Your task to perform on an android device: Search for Italian restaurants on Maps Image 0: 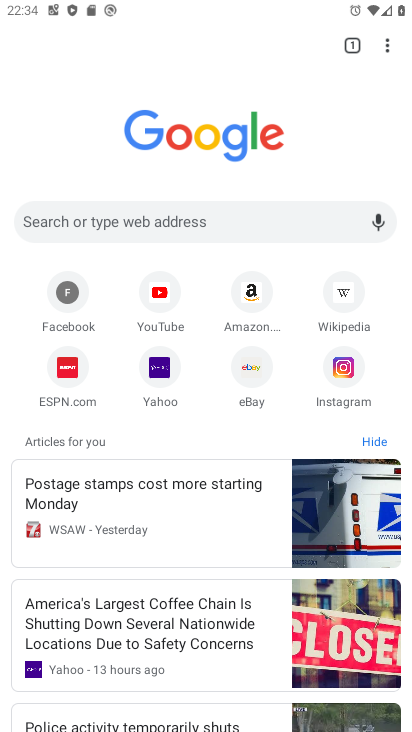
Step 0: press home button
Your task to perform on an android device: Search for Italian restaurants on Maps Image 1: 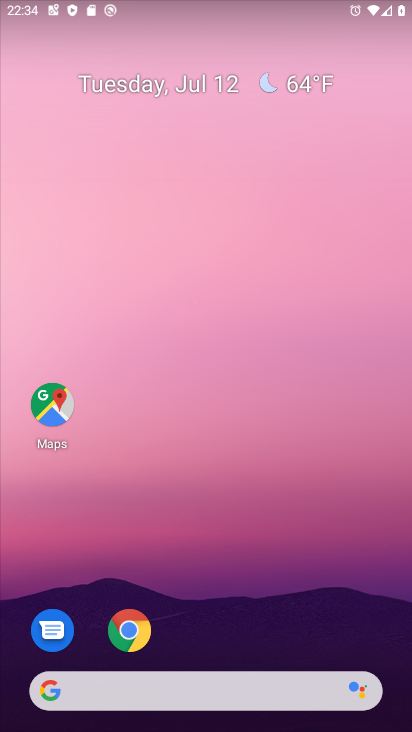
Step 1: drag from (219, 648) to (171, 111)
Your task to perform on an android device: Search for Italian restaurants on Maps Image 2: 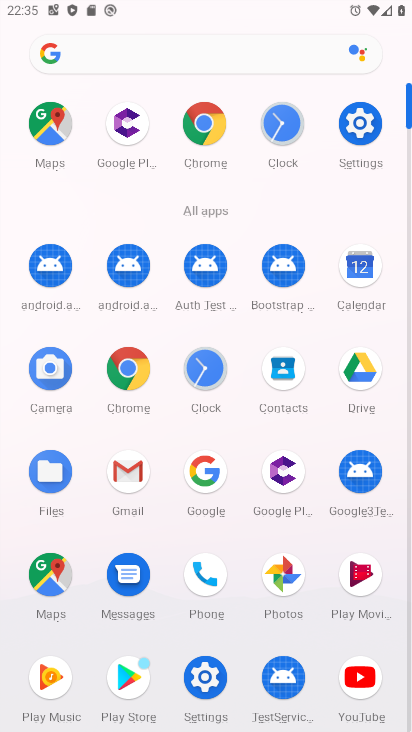
Step 2: click (55, 570)
Your task to perform on an android device: Search for Italian restaurants on Maps Image 3: 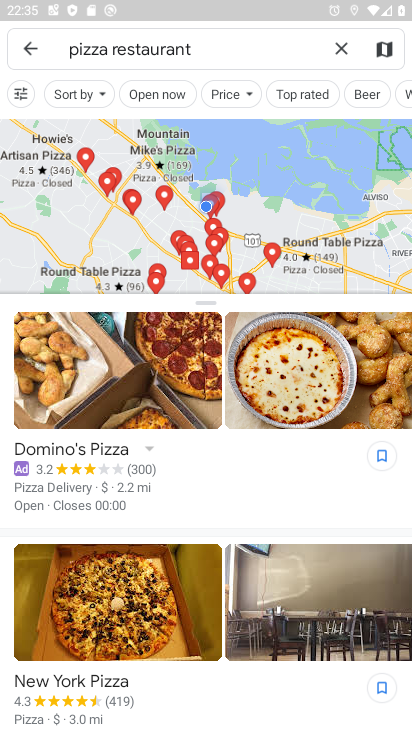
Step 3: click (337, 48)
Your task to perform on an android device: Search for Italian restaurants on Maps Image 4: 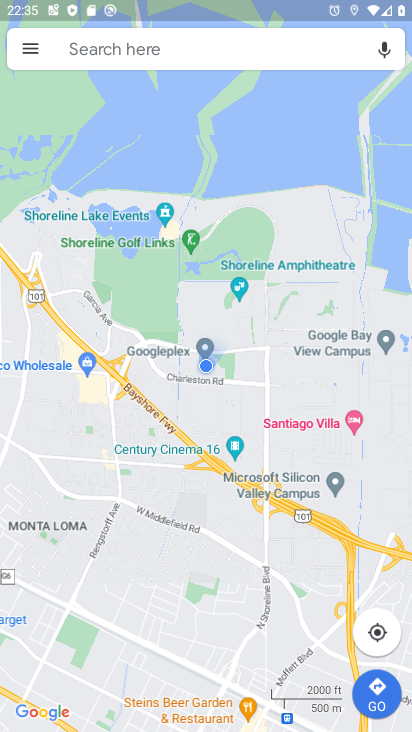
Step 4: click (233, 48)
Your task to perform on an android device: Search for Italian restaurants on Maps Image 5: 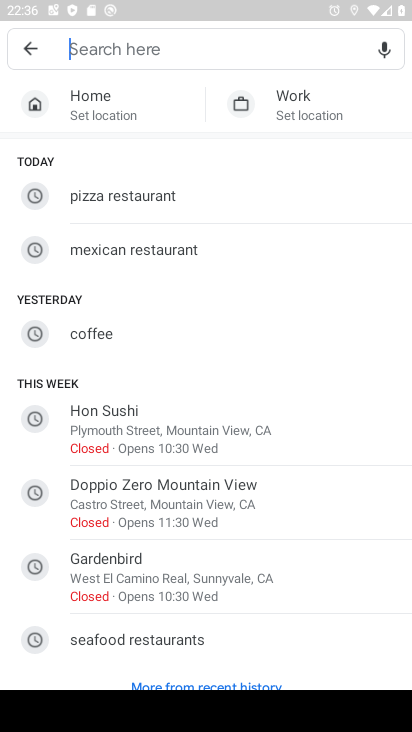
Step 5: type "Italian restaurants"
Your task to perform on an android device: Search for Italian restaurants on Maps Image 6: 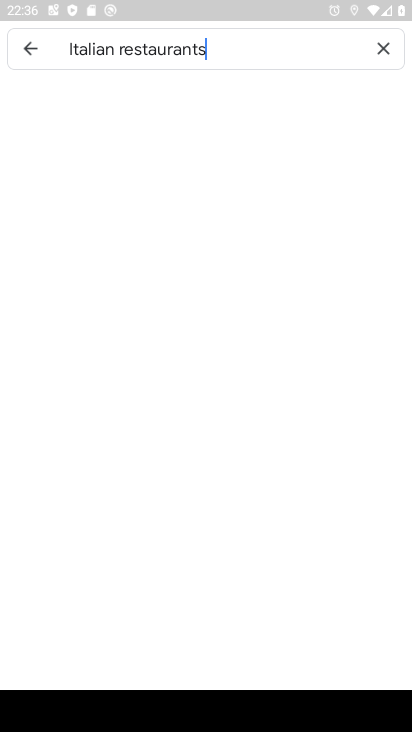
Step 6: type ""
Your task to perform on an android device: Search for Italian restaurants on Maps Image 7: 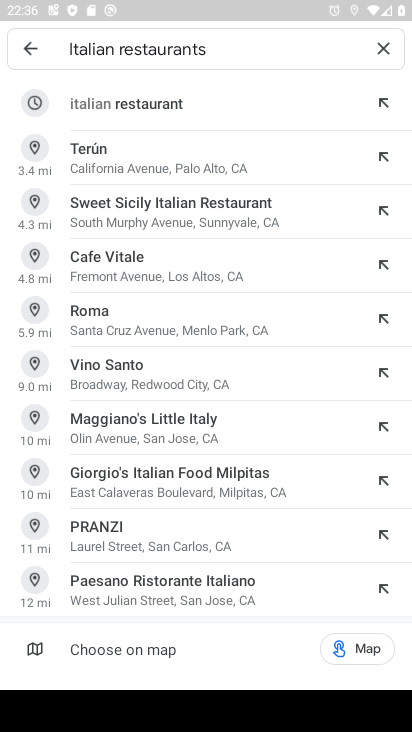
Step 7: click (146, 111)
Your task to perform on an android device: Search for Italian restaurants on Maps Image 8: 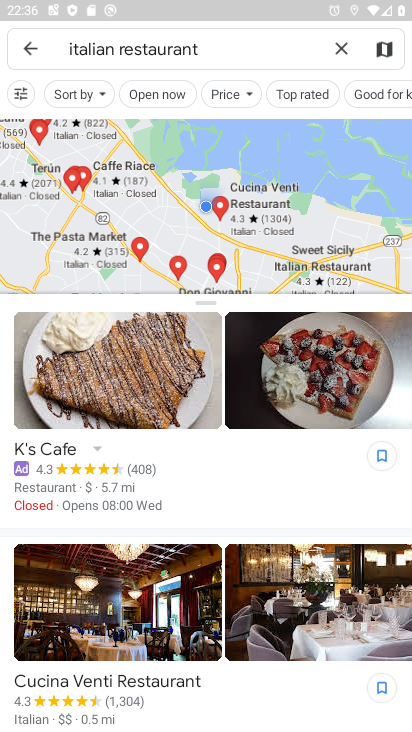
Step 8: task complete